Your task to perform on an android device: Search for pizza restaurants on Maps Image 0: 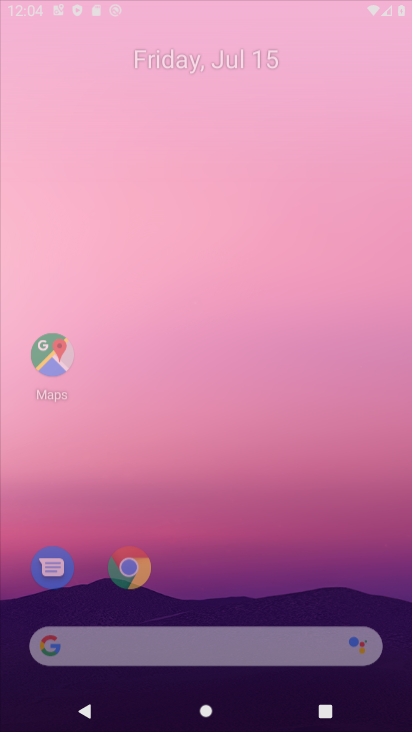
Step 0: click (113, 673)
Your task to perform on an android device: Search for pizza restaurants on Maps Image 1: 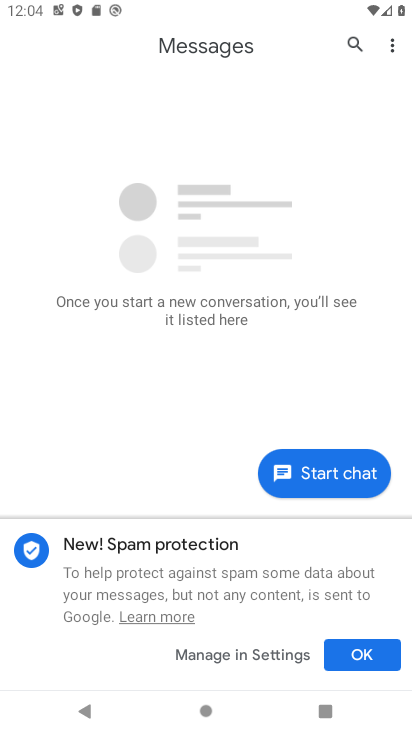
Step 1: press home button
Your task to perform on an android device: Search for pizza restaurants on Maps Image 2: 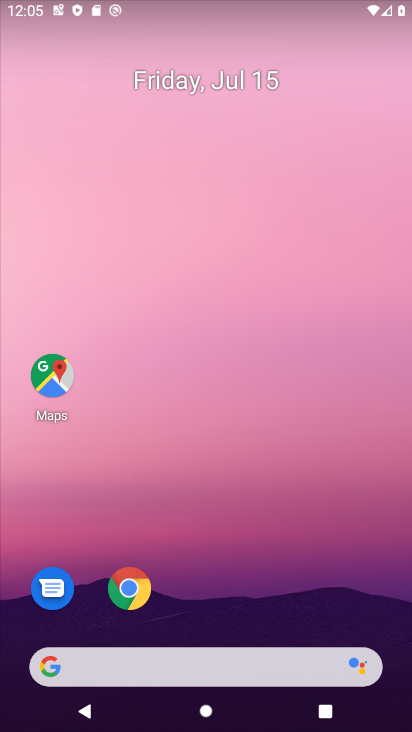
Step 2: click (51, 376)
Your task to perform on an android device: Search for pizza restaurants on Maps Image 3: 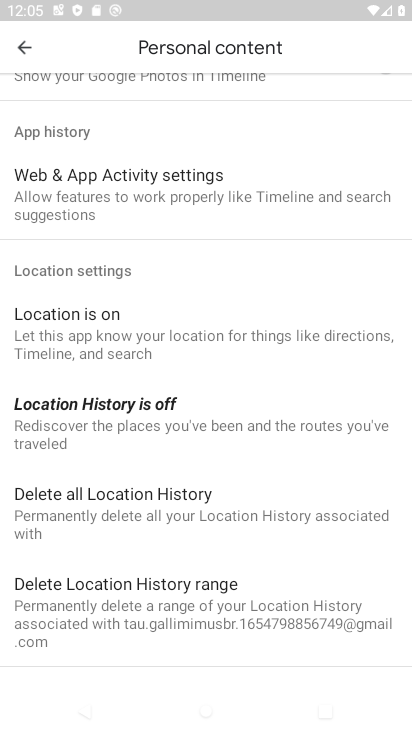
Step 3: click (17, 52)
Your task to perform on an android device: Search for pizza restaurants on Maps Image 4: 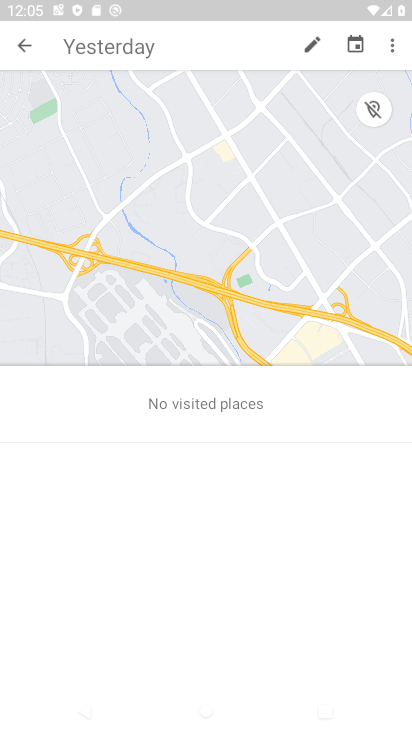
Step 4: click (25, 38)
Your task to perform on an android device: Search for pizza restaurants on Maps Image 5: 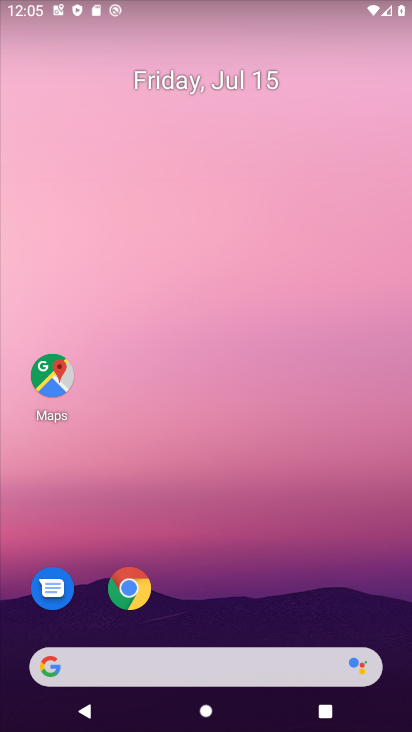
Step 5: click (59, 378)
Your task to perform on an android device: Search for pizza restaurants on Maps Image 6: 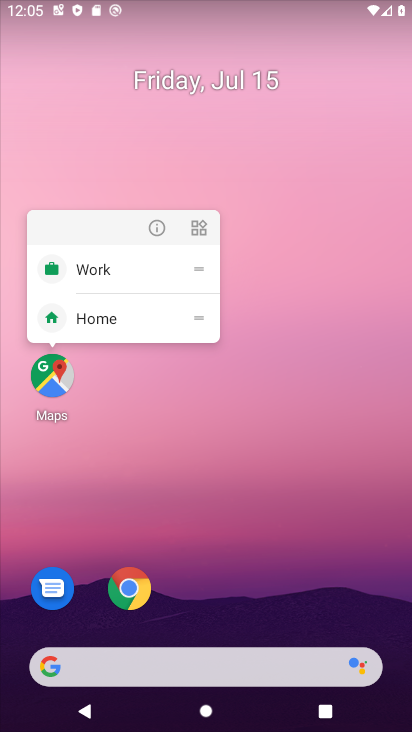
Step 6: click (66, 363)
Your task to perform on an android device: Search for pizza restaurants on Maps Image 7: 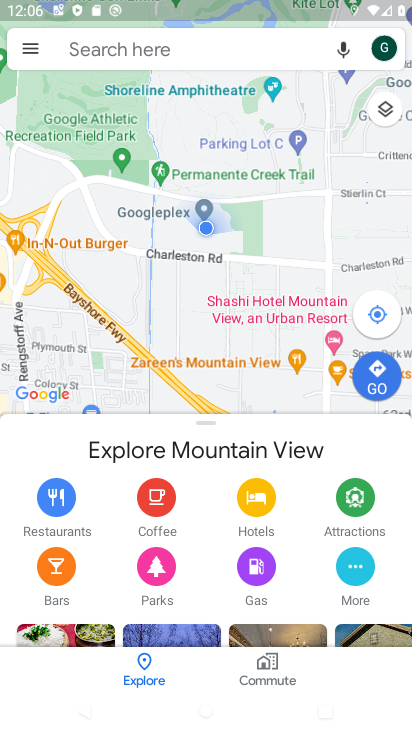
Step 7: click (189, 44)
Your task to perform on an android device: Search for pizza restaurants on Maps Image 8: 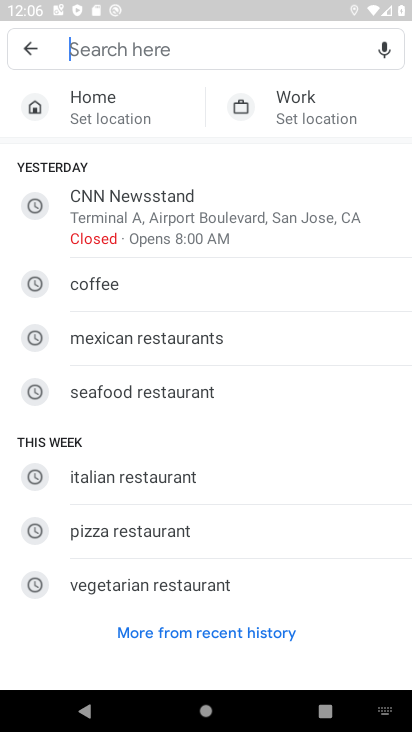
Step 8: click (173, 532)
Your task to perform on an android device: Search for pizza restaurants on Maps Image 9: 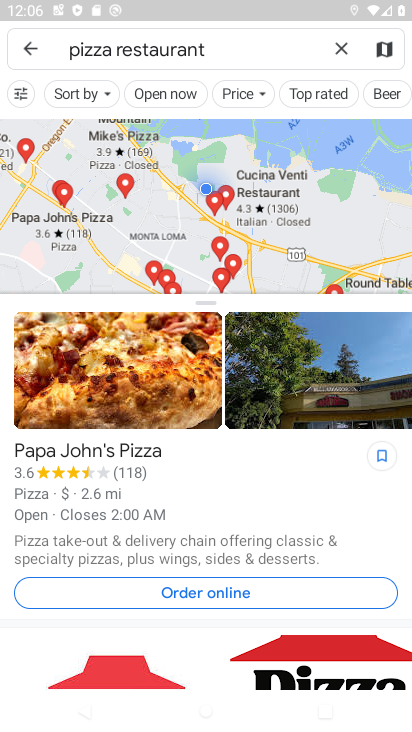
Step 9: task complete